Your task to perform on an android device: allow notifications from all sites in the chrome app Image 0: 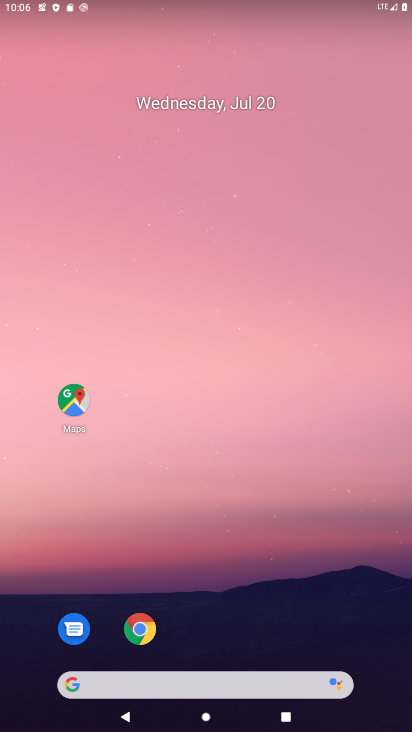
Step 0: drag from (281, 671) to (304, 129)
Your task to perform on an android device: allow notifications from all sites in the chrome app Image 1: 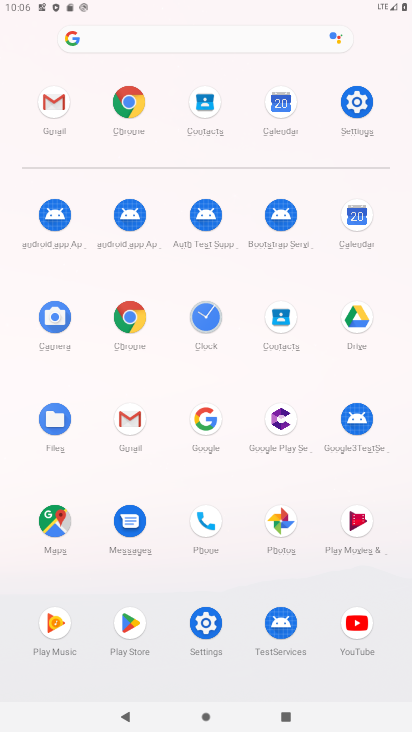
Step 1: click (129, 337)
Your task to perform on an android device: allow notifications from all sites in the chrome app Image 2: 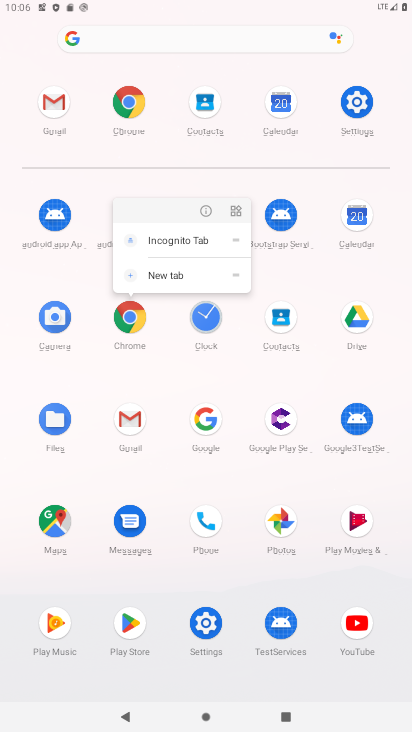
Step 2: click (207, 205)
Your task to perform on an android device: allow notifications from all sites in the chrome app Image 3: 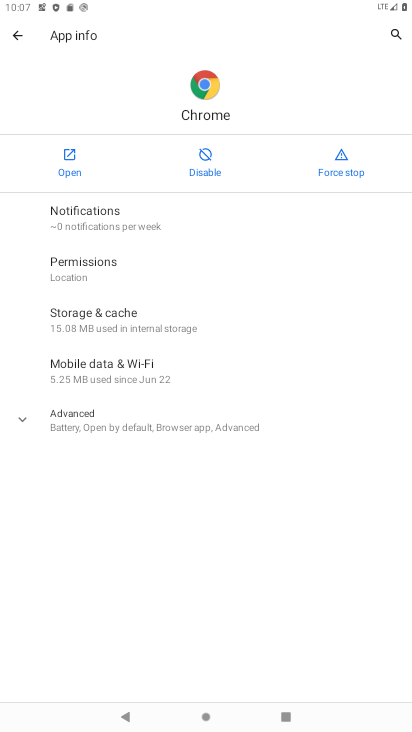
Step 3: click (130, 261)
Your task to perform on an android device: allow notifications from all sites in the chrome app Image 4: 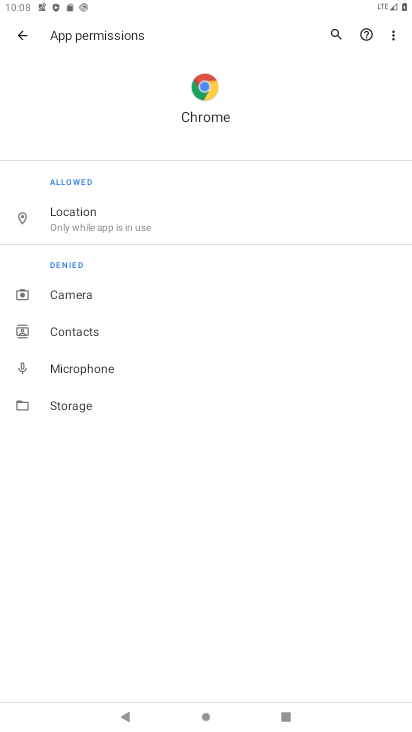
Step 4: click (79, 372)
Your task to perform on an android device: allow notifications from all sites in the chrome app Image 5: 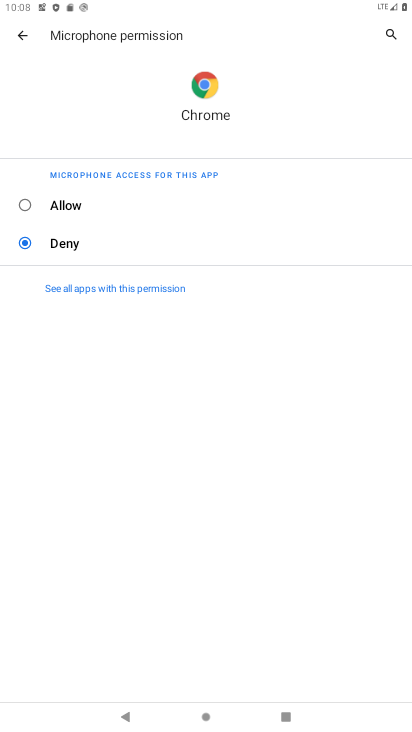
Step 5: click (78, 206)
Your task to perform on an android device: allow notifications from all sites in the chrome app Image 6: 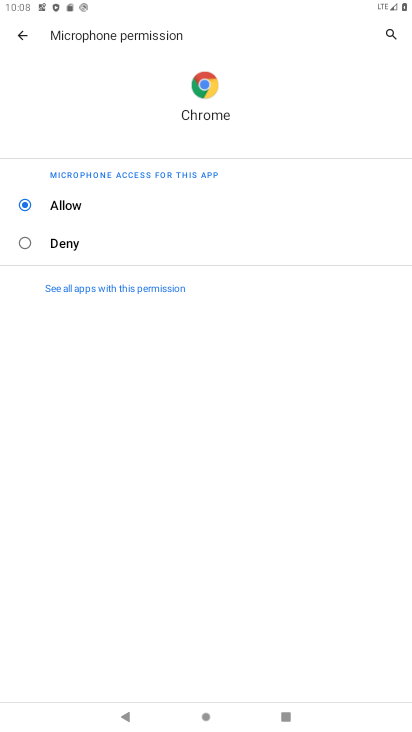
Step 6: click (32, 36)
Your task to perform on an android device: allow notifications from all sites in the chrome app Image 7: 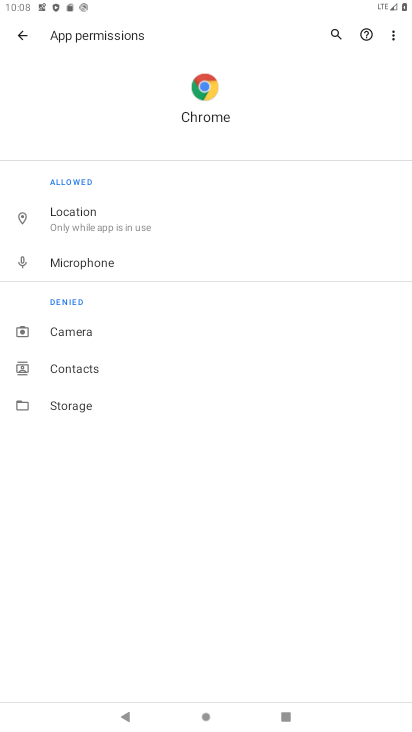
Step 7: click (76, 331)
Your task to perform on an android device: allow notifications from all sites in the chrome app Image 8: 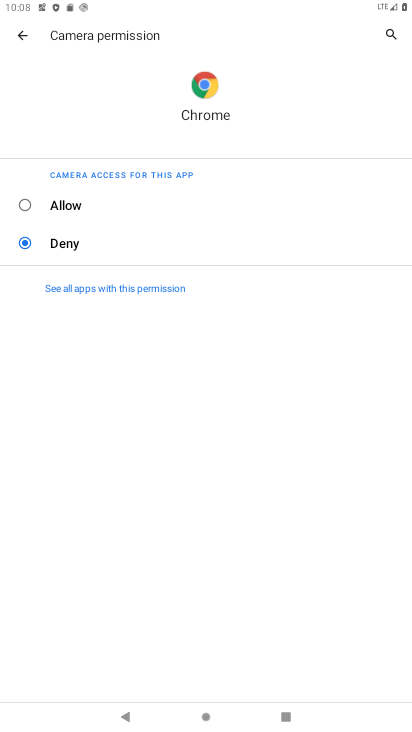
Step 8: click (46, 205)
Your task to perform on an android device: allow notifications from all sites in the chrome app Image 9: 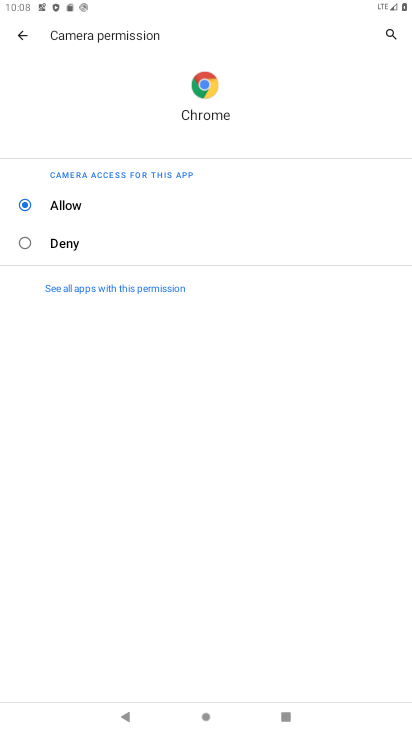
Step 9: click (29, 24)
Your task to perform on an android device: allow notifications from all sites in the chrome app Image 10: 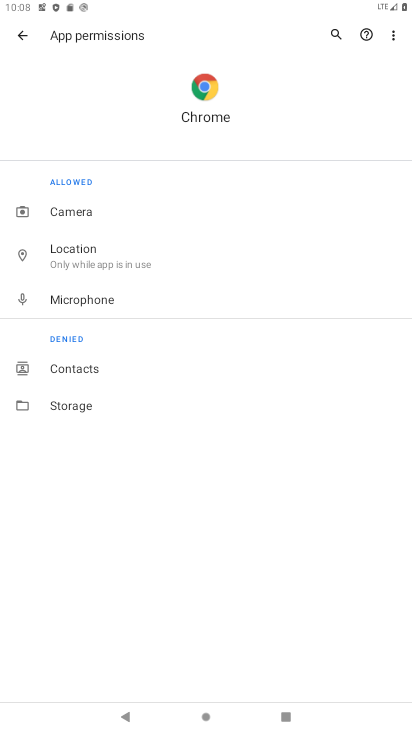
Step 10: click (27, 31)
Your task to perform on an android device: allow notifications from all sites in the chrome app Image 11: 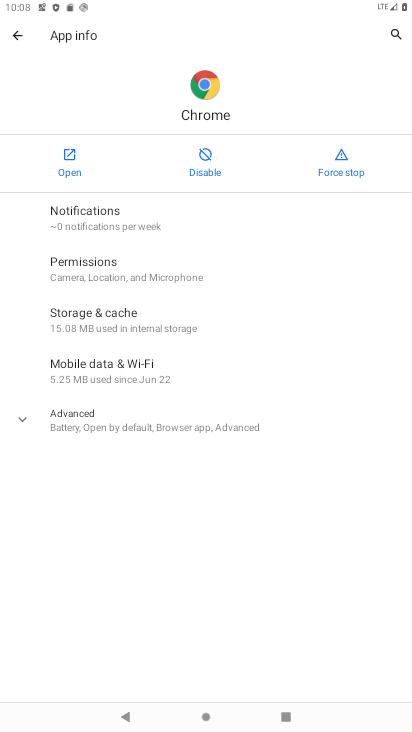
Step 11: click (73, 259)
Your task to perform on an android device: allow notifications from all sites in the chrome app Image 12: 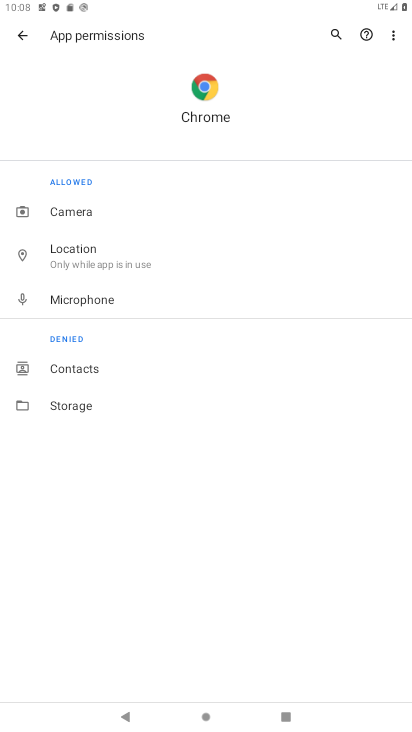
Step 12: click (61, 373)
Your task to perform on an android device: allow notifications from all sites in the chrome app Image 13: 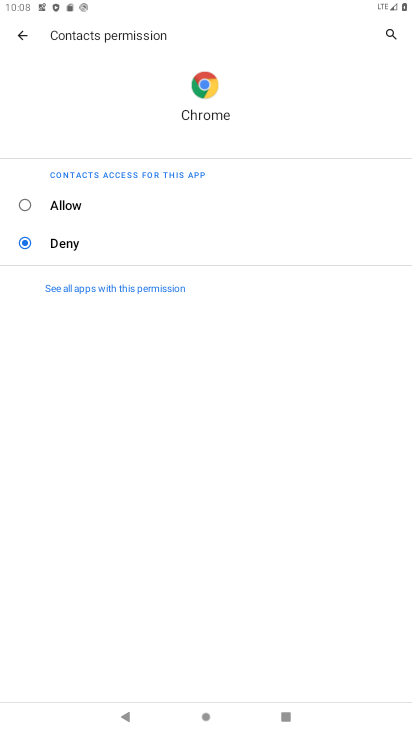
Step 13: click (59, 192)
Your task to perform on an android device: allow notifications from all sites in the chrome app Image 14: 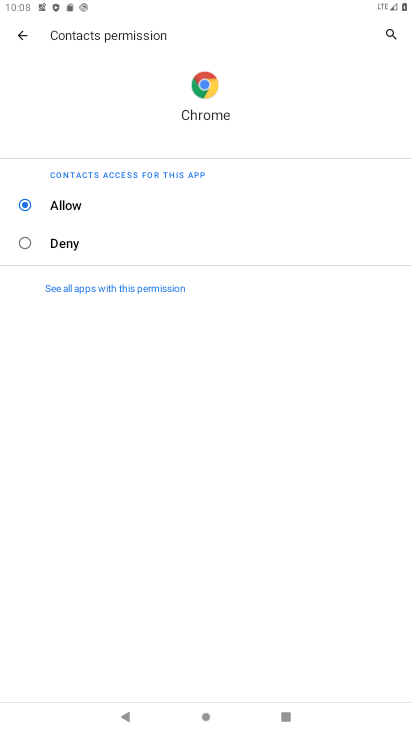
Step 14: click (20, 35)
Your task to perform on an android device: allow notifications from all sites in the chrome app Image 15: 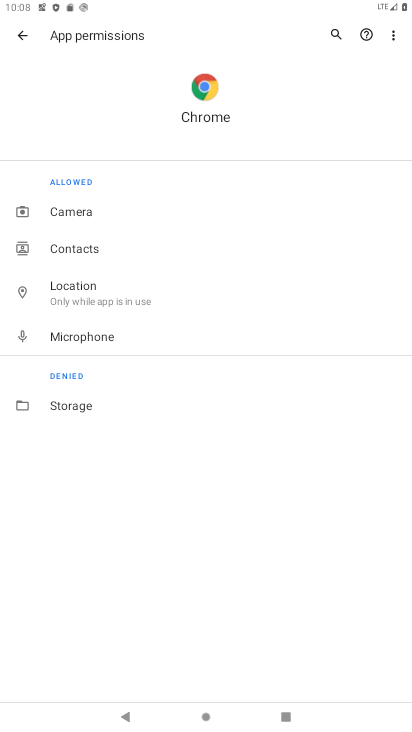
Step 15: click (75, 391)
Your task to perform on an android device: allow notifications from all sites in the chrome app Image 16: 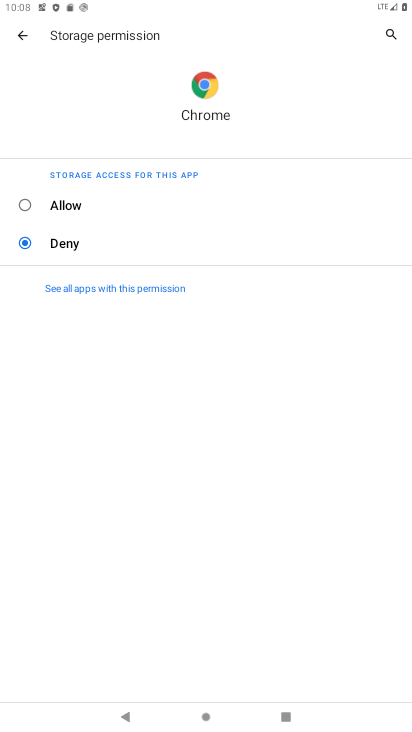
Step 16: click (12, 208)
Your task to perform on an android device: allow notifications from all sites in the chrome app Image 17: 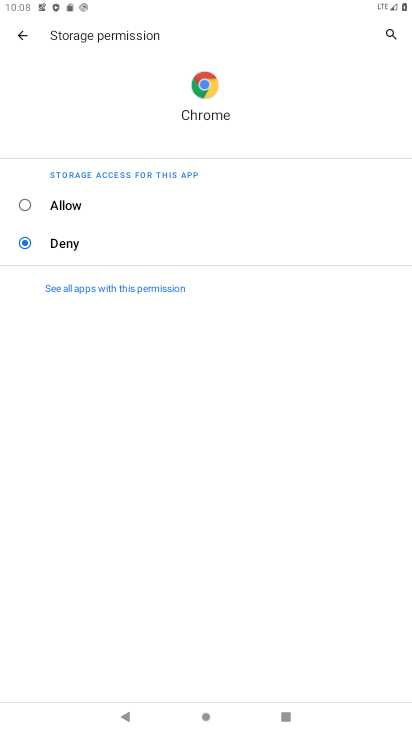
Step 17: click (22, 24)
Your task to perform on an android device: allow notifications from all sites in the chrome app Image 18: 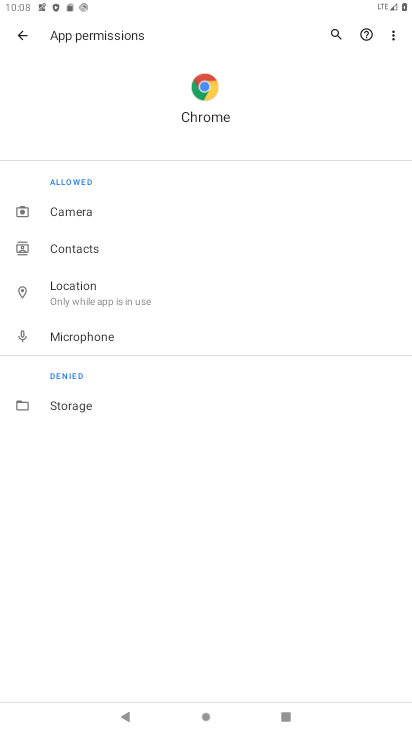
Step 18: click (71, 416)
Your task to perform on an android device: allow notifications from all sites in the chrome app Image 19: 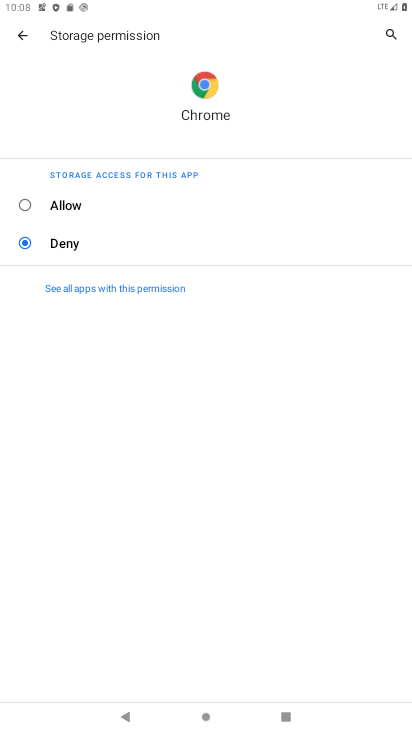
Step 19: click (52, 215)
Your task to perform on an android device: allow notifications from all sites in the chrome app Image 20: 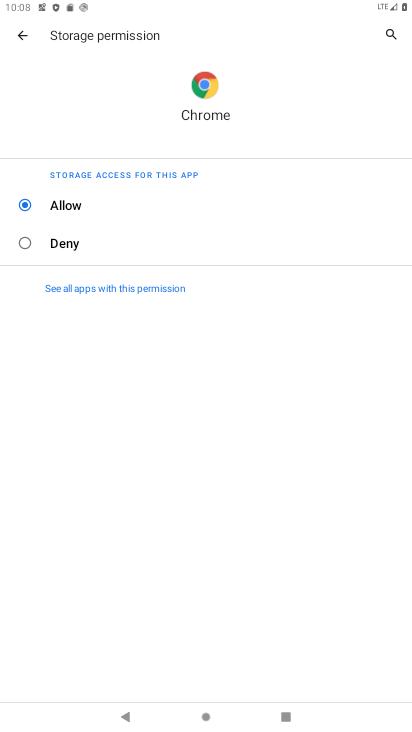
Step 20: click (14, 40)
Your task to perform on an android device: allow notifications from all sites in the chrome app Image 21: 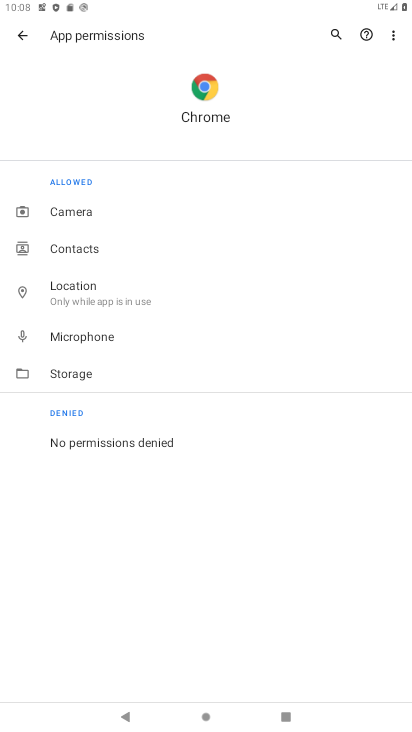
Step 21: task complete